Your task to perform on an android device: delete location history Image 0: 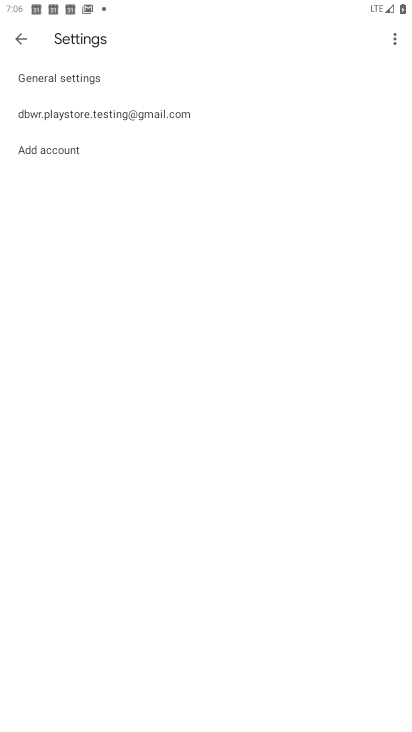
Step 0: press home button
Your task to perform on an android device: delete location history Image 1: 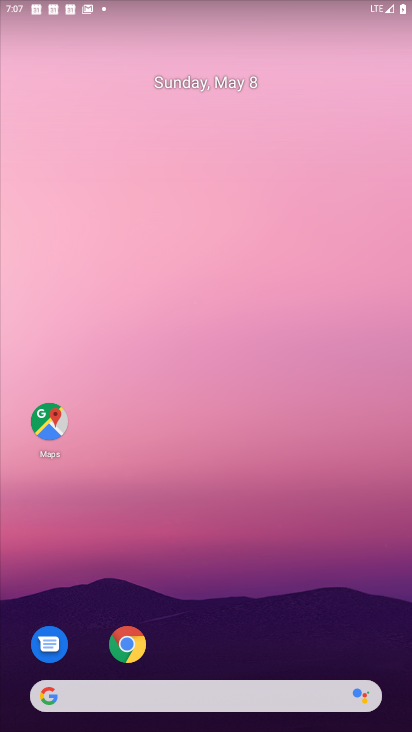
Step 1: drag from (321, 622) to (195, 168)
Your task to perform on an android device: delete location history Image 2: 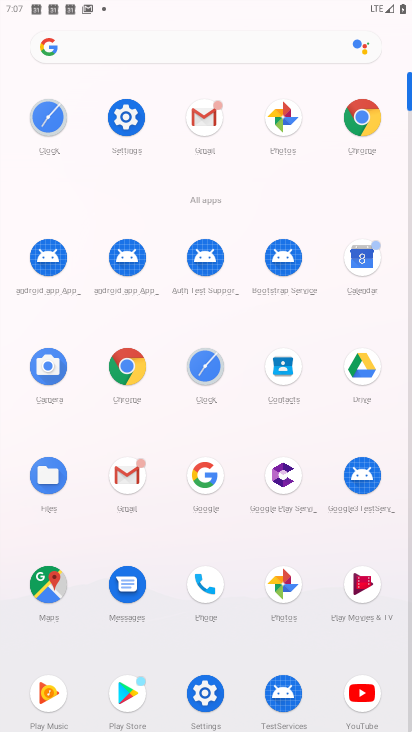
Step 2: click (205, 691)
Your task to perform on an android device: delete location history Image 3: 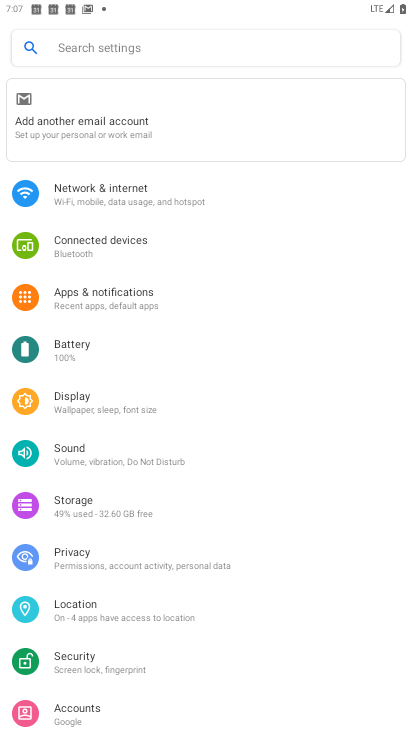
Step 3: click (90, 603)
Your task to perform on an android device: delete location history Image 4: 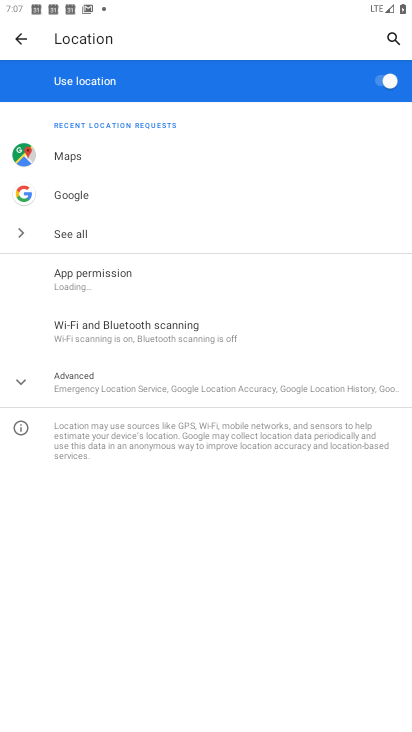
Step 4: click (33, 381)
Your task to perform on an android device: delete location history Image 5: 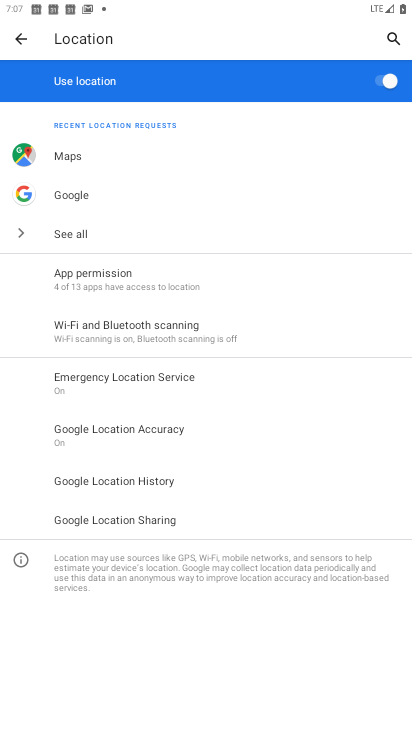
Step 5: click (132, 483)
Your task to perform on an android device: delete location history Image 6: 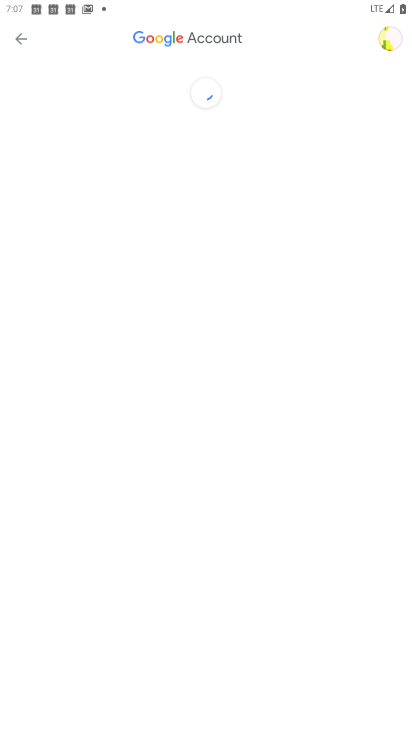
Step 6: drag from (292, 606) to (283, 550)
Your task to perform on an android device: delete location history Image 7: 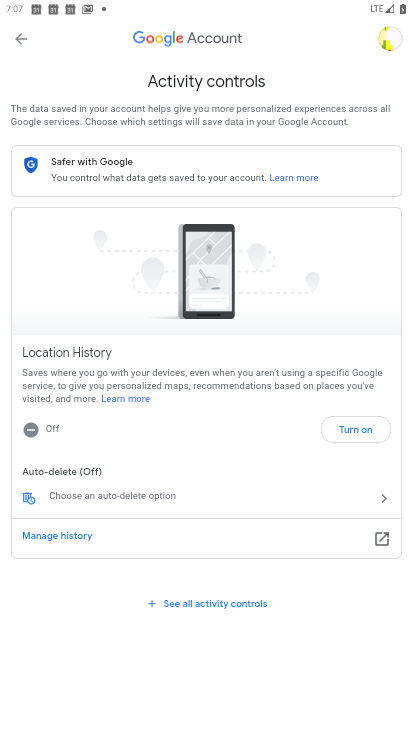
Step 7: drag from (283, 555) to (210, 307)
Your task to perform on an android device: delete location history Image 8: 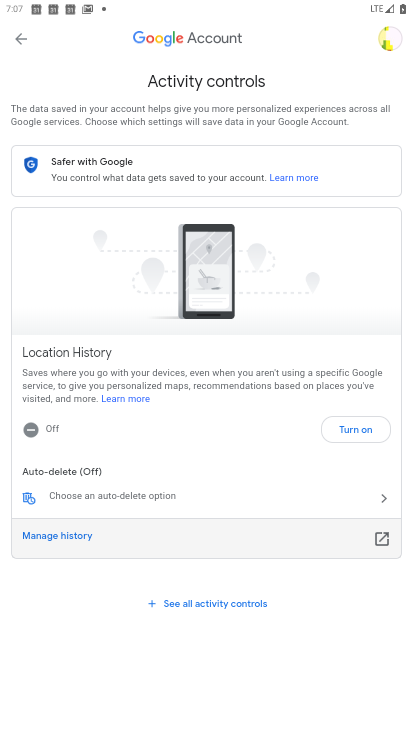
Step 8: drag from (254, 447) to (226, 209)
Your task to perform on an android device: delete location history Image 9: 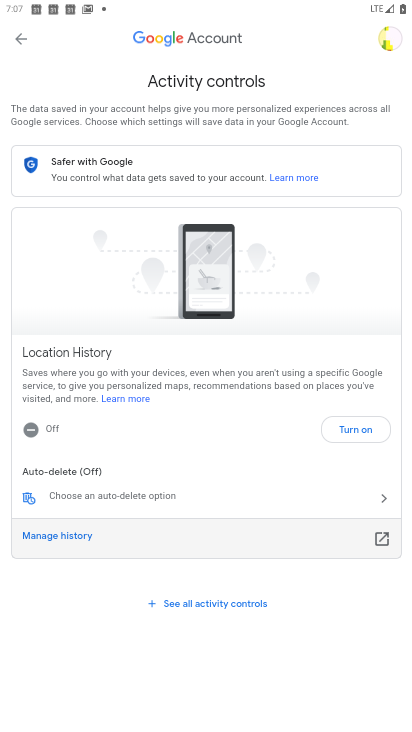
Step 9: click (289, 495)
Your task to perform on an android device: delete location history Image 10: 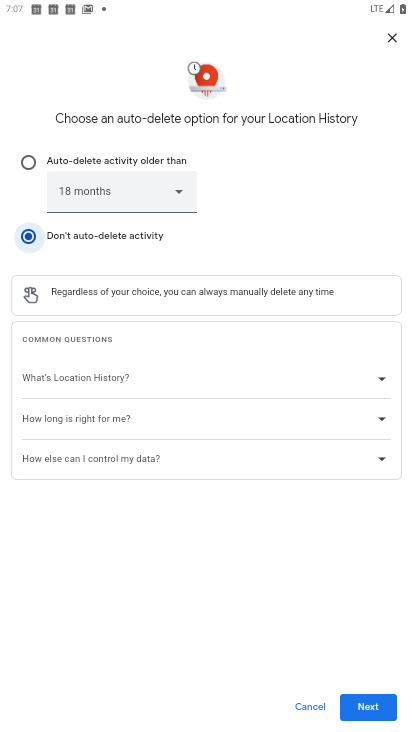
Step 10: click (369, 707)
Your task to perform on an android device: delete location history Image 11: 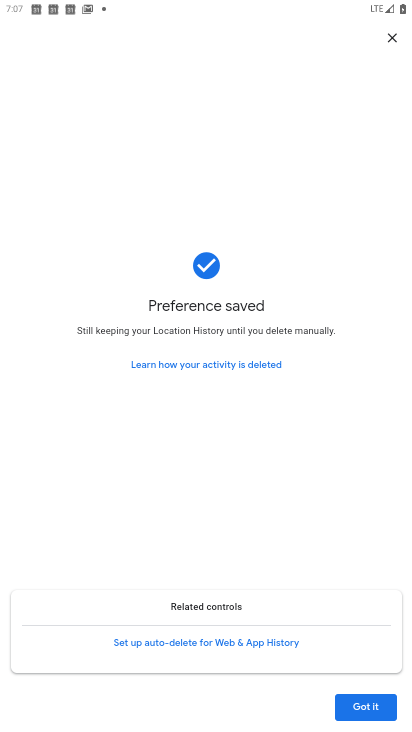
Step 11: click (369, 707)
Your task to perform on an android device: delete location history Image 12: 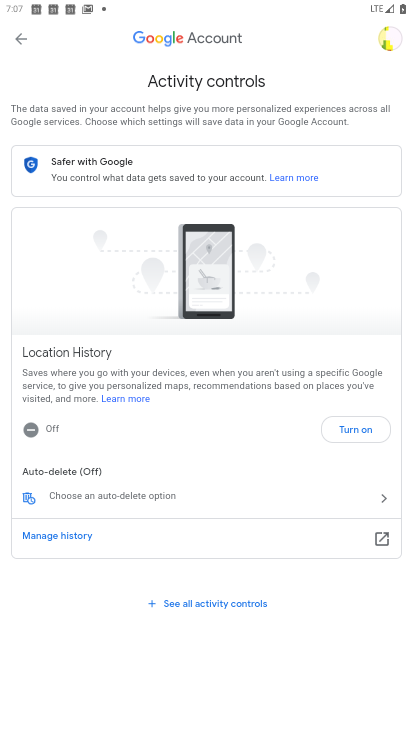
Step 12: task complete